Your task to perform on an android device: What's the weather going to be this weekend? Image 0: 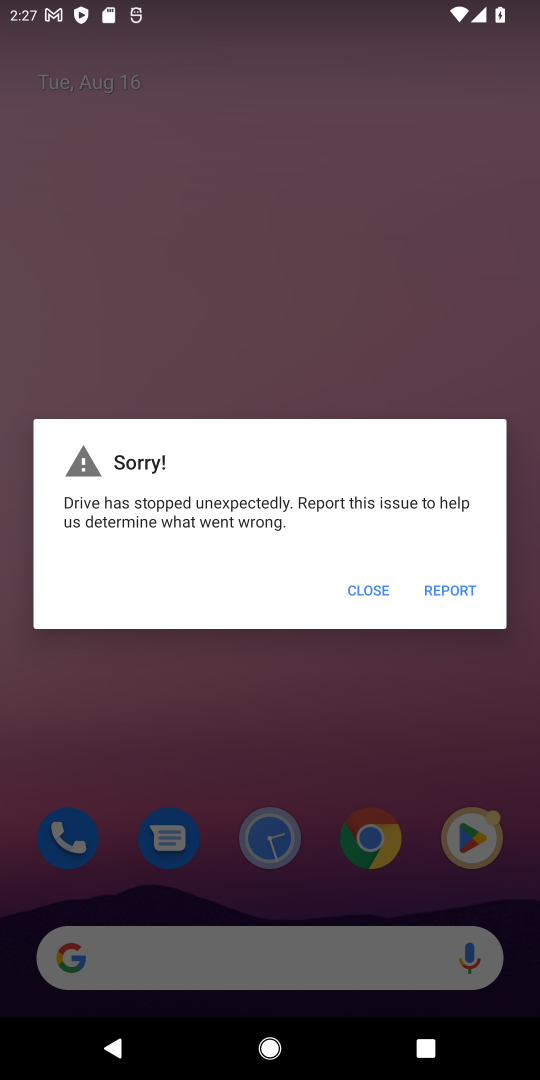
Step 0: press home button
Your task to perform on an android device: What's the weather going to be this weekend? Image 1: 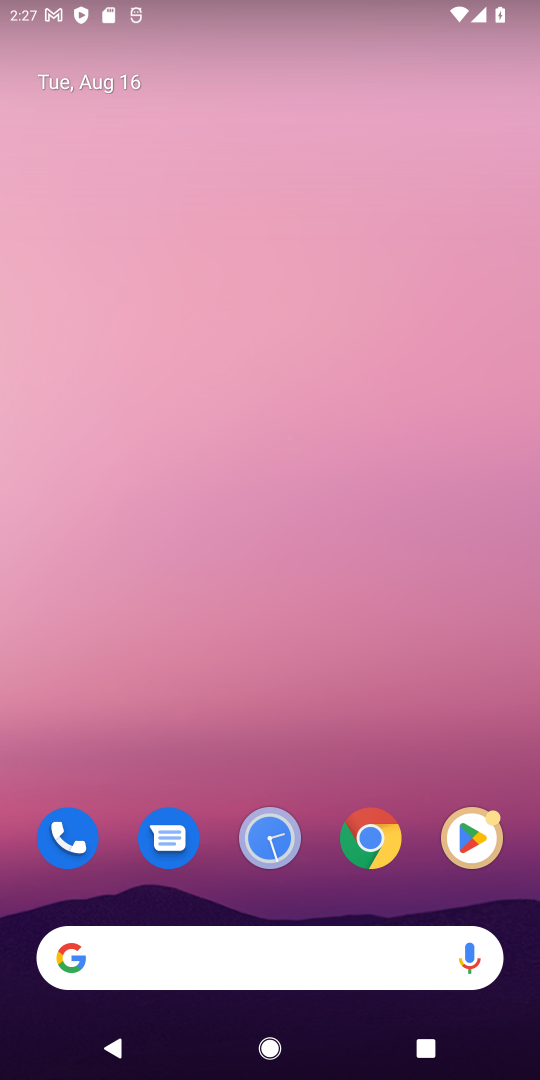
Step 1: click (65, 952)
Your task to perform on an android device: What's the weather going to be this weekend? Image 2: 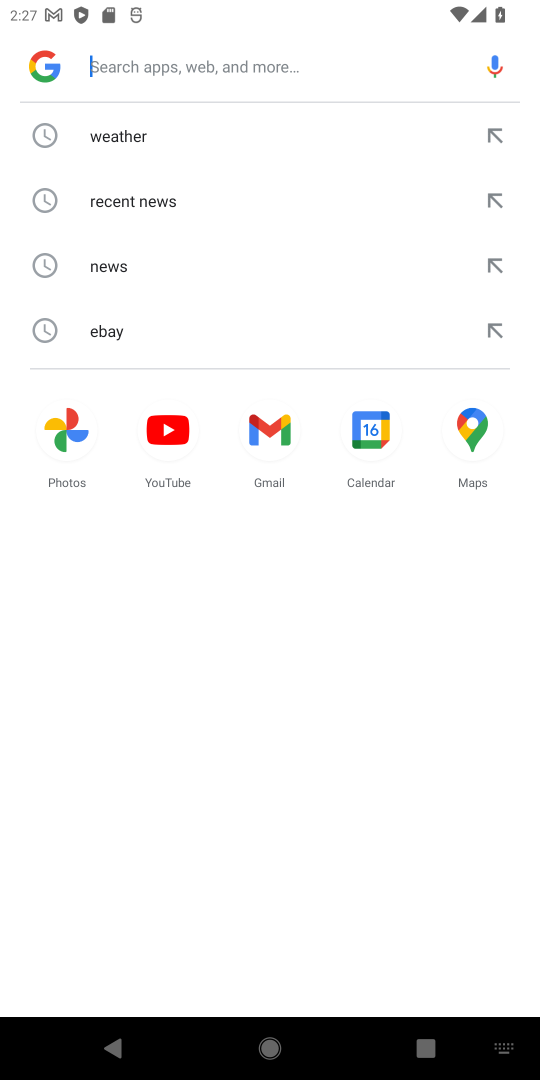
Step 2: type "What's the weather going to be this weekend?"
Your task to perform on an android device: What's the weather going to be this weekend? Image 3: 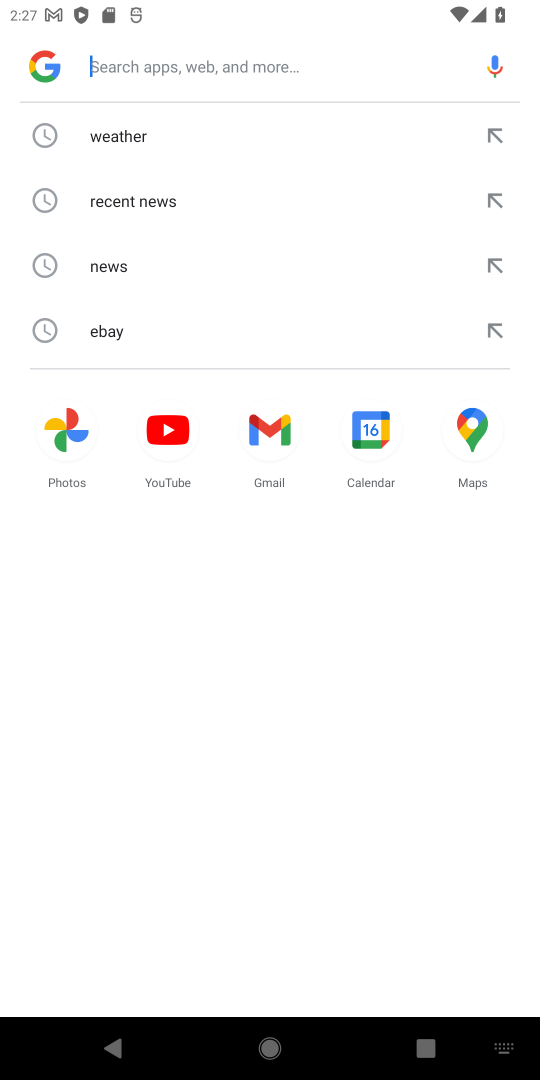
Step 3: click (246, 64)
Your task to perform on an android device: What's the weather going to be this weekend? Image 4: 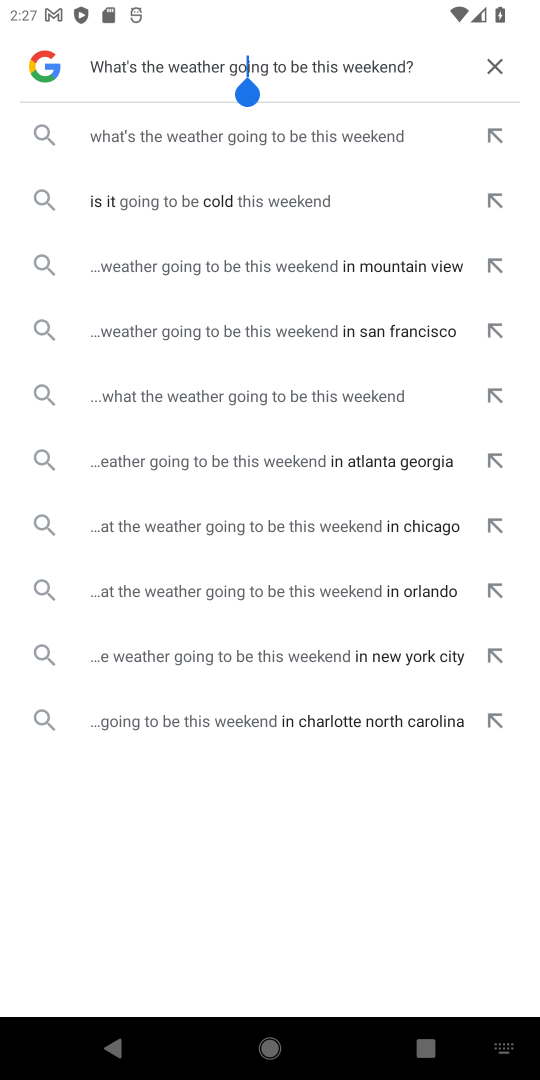
Step 4: press enter
Your task to perform on an android device: What's the weather going to be this weekend? Image 5: 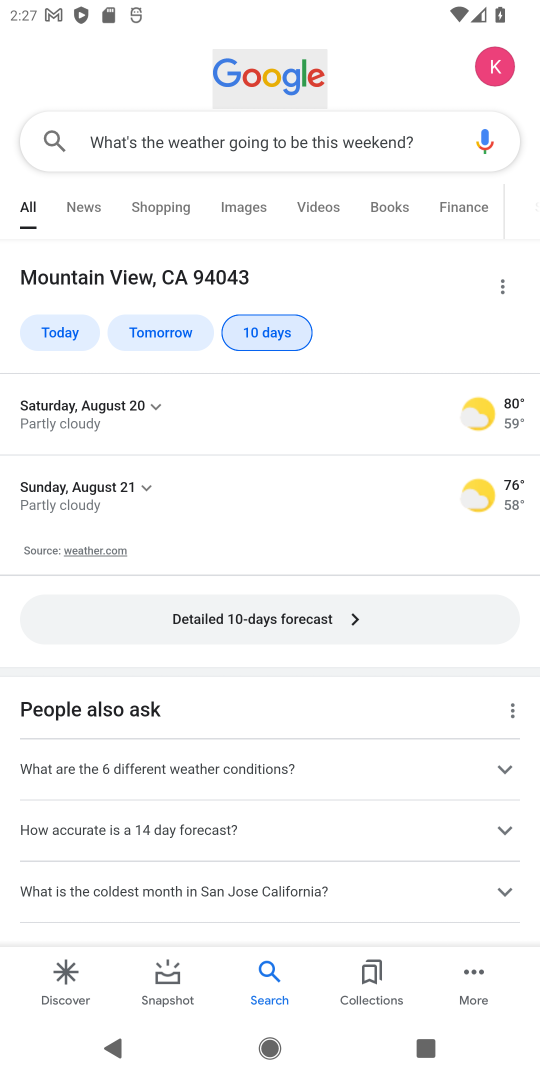
Step 5: task complete